Your task to perform on an android device: install app "Viber Messenger" Image 0: 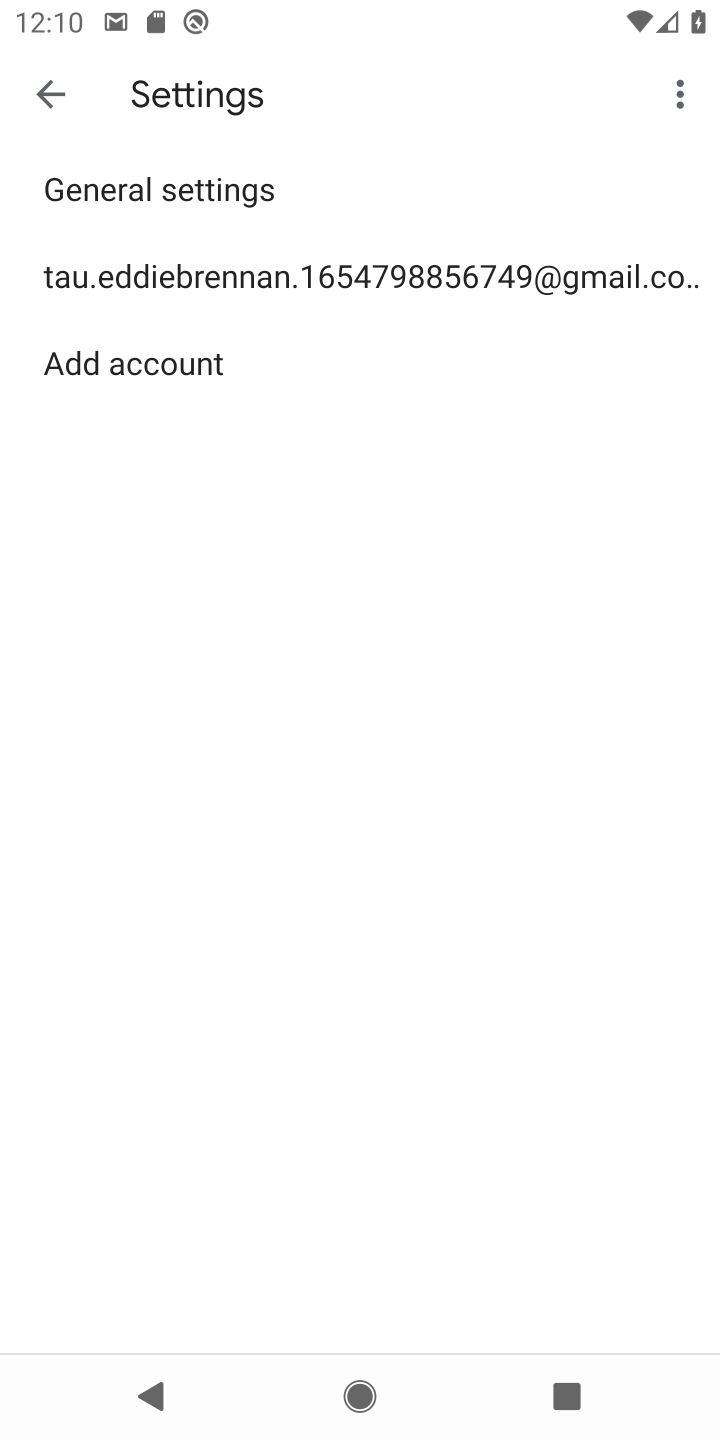
Step 0: press home button
Your task to perform on an android device: install app "Viber Messenger" Image 1: 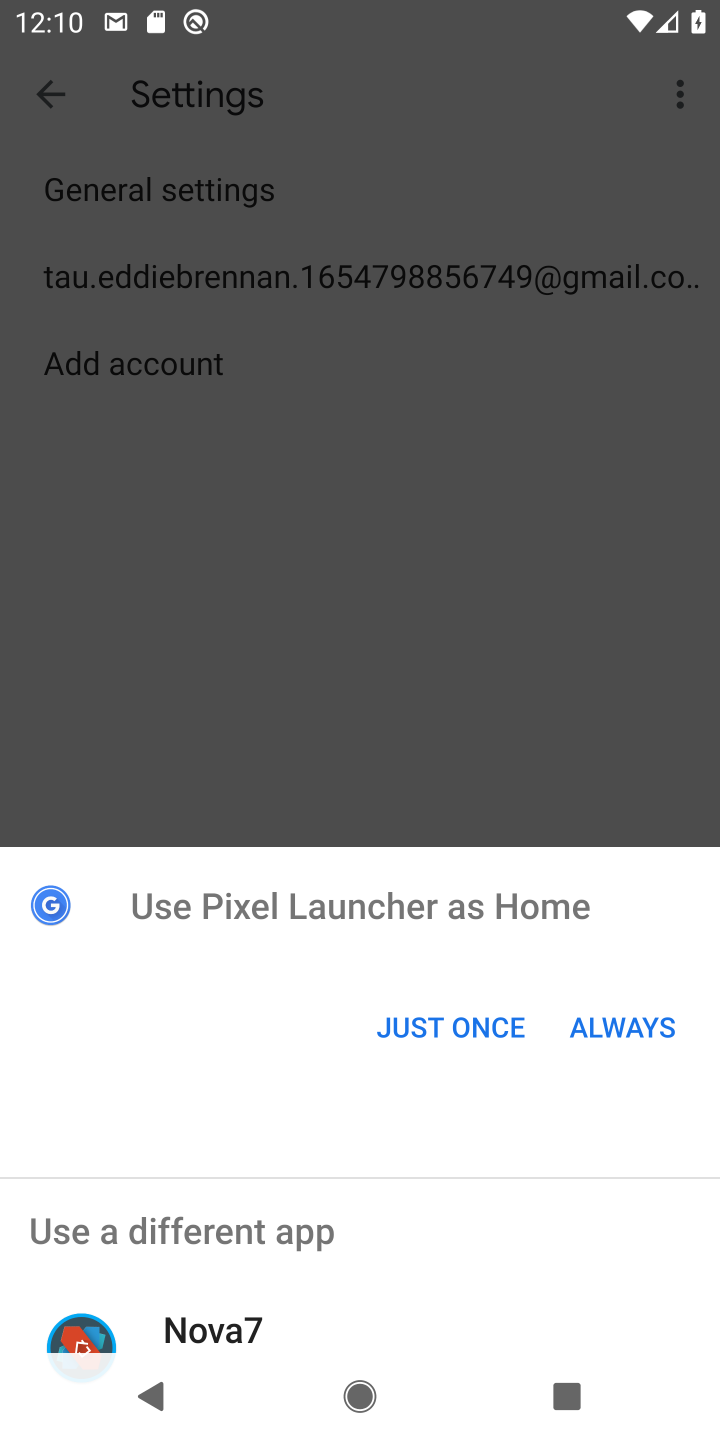
Step 1: press home button
Your task to perform on an android device: install app "Viber Messenger" Image 2: 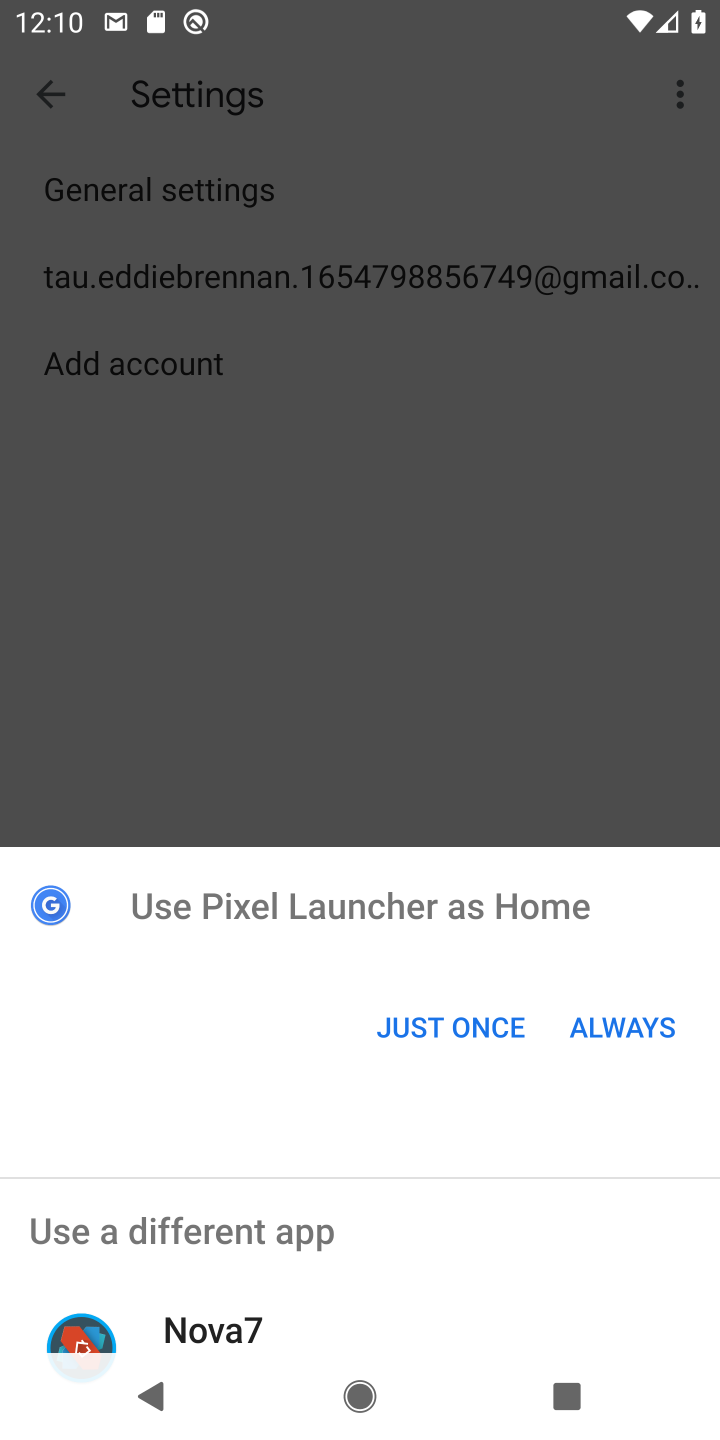
Step 2: click (600, 1027)
Your task to perform on an android device: install app "Viber Messenger" Image 3: 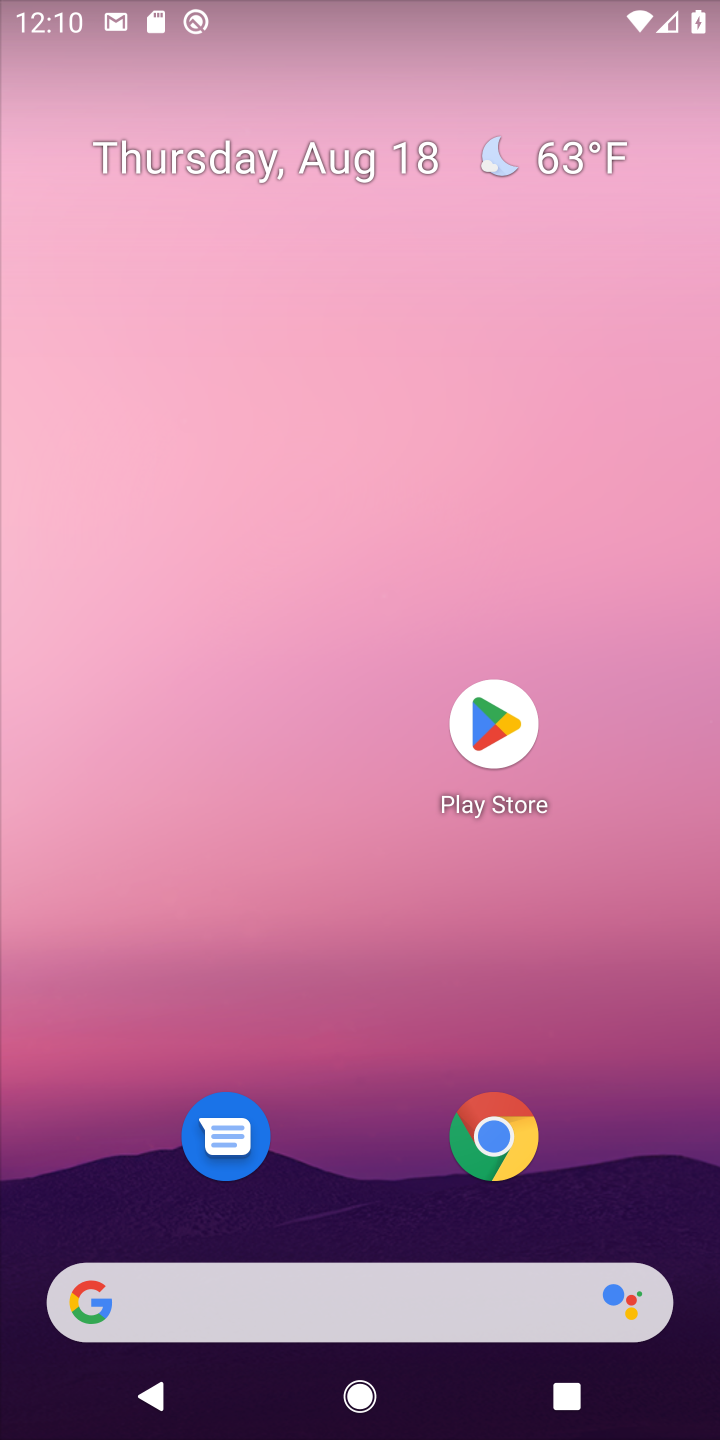
Step 3: click (498, 717)
Your task to perform on an android device: install app "Viber Messenger" Image 4: 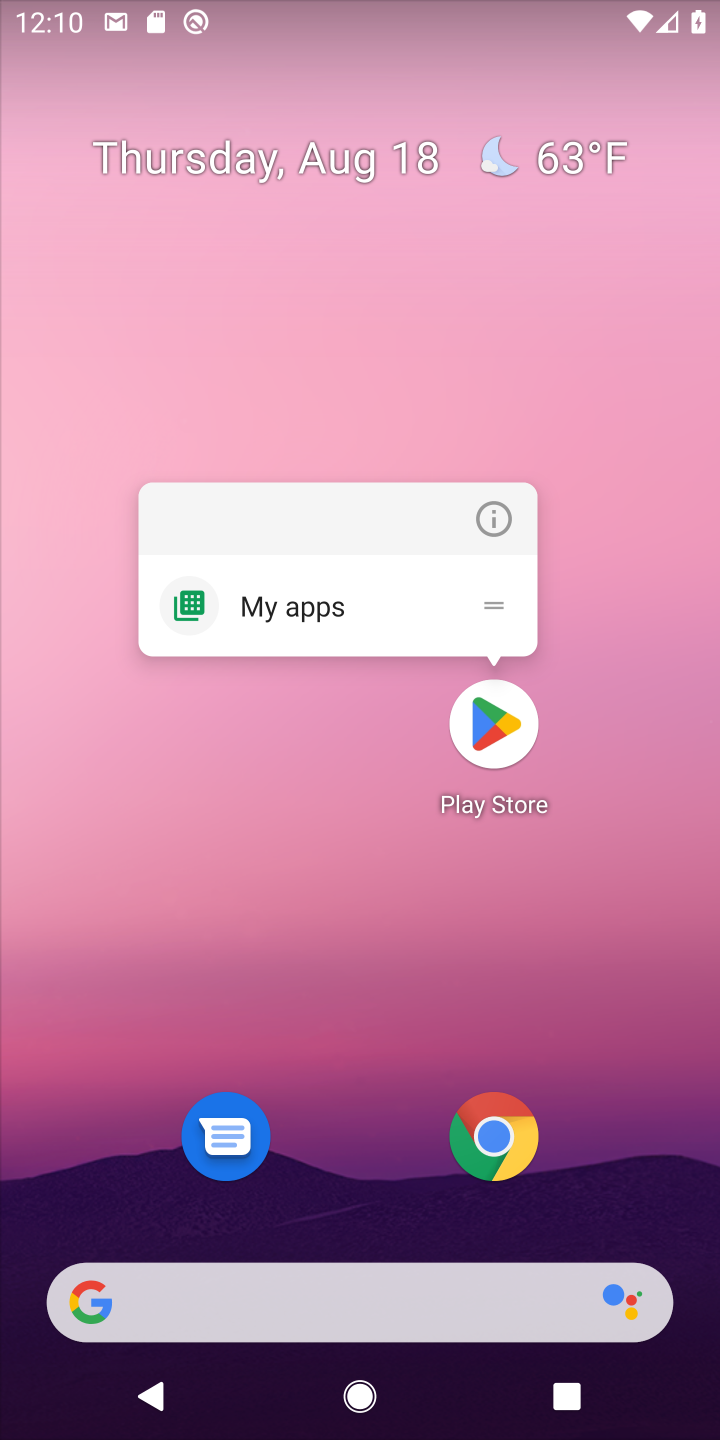
Step 4: click (498, 717)
Your task to perform on an android device: install app "Viber Messenger" Image 5: 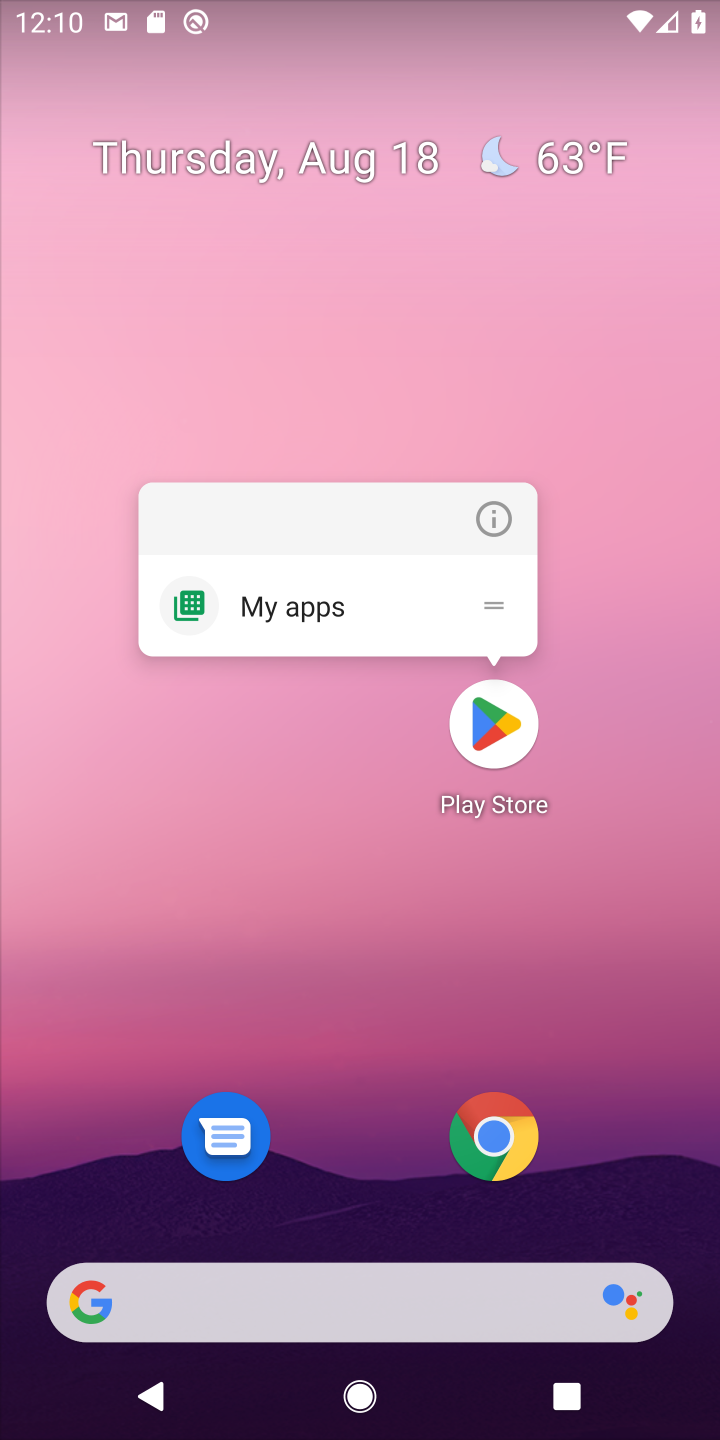
Step 5: click (483, 743)
Your task to perform on an android device: install app "Viber Messenger" Image 6: 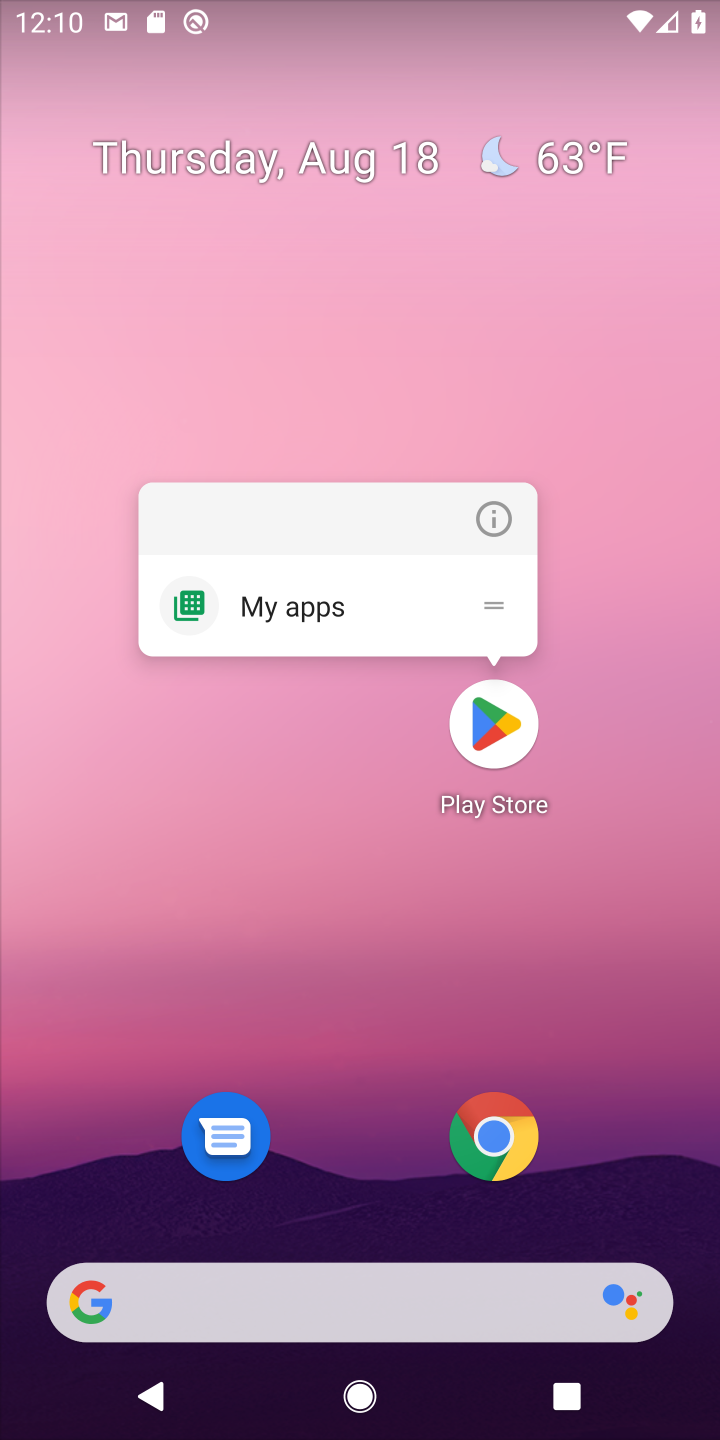
Step 6: click (483, 745)
Your task to perform on an android device: install app "Viber Messenger" Image 7: 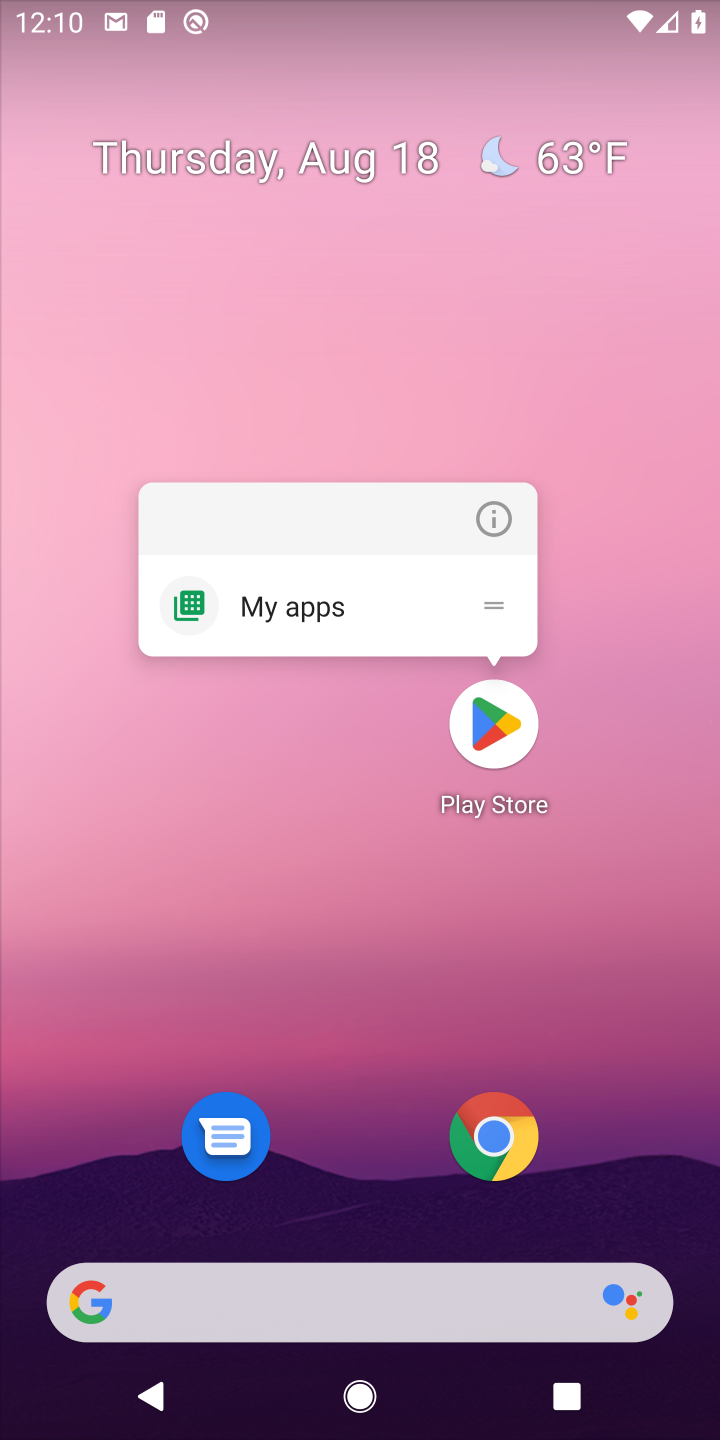
Step 7: click (483, 745)
Your task to perform on an android device: install app "Viber Messenger" Image 8: 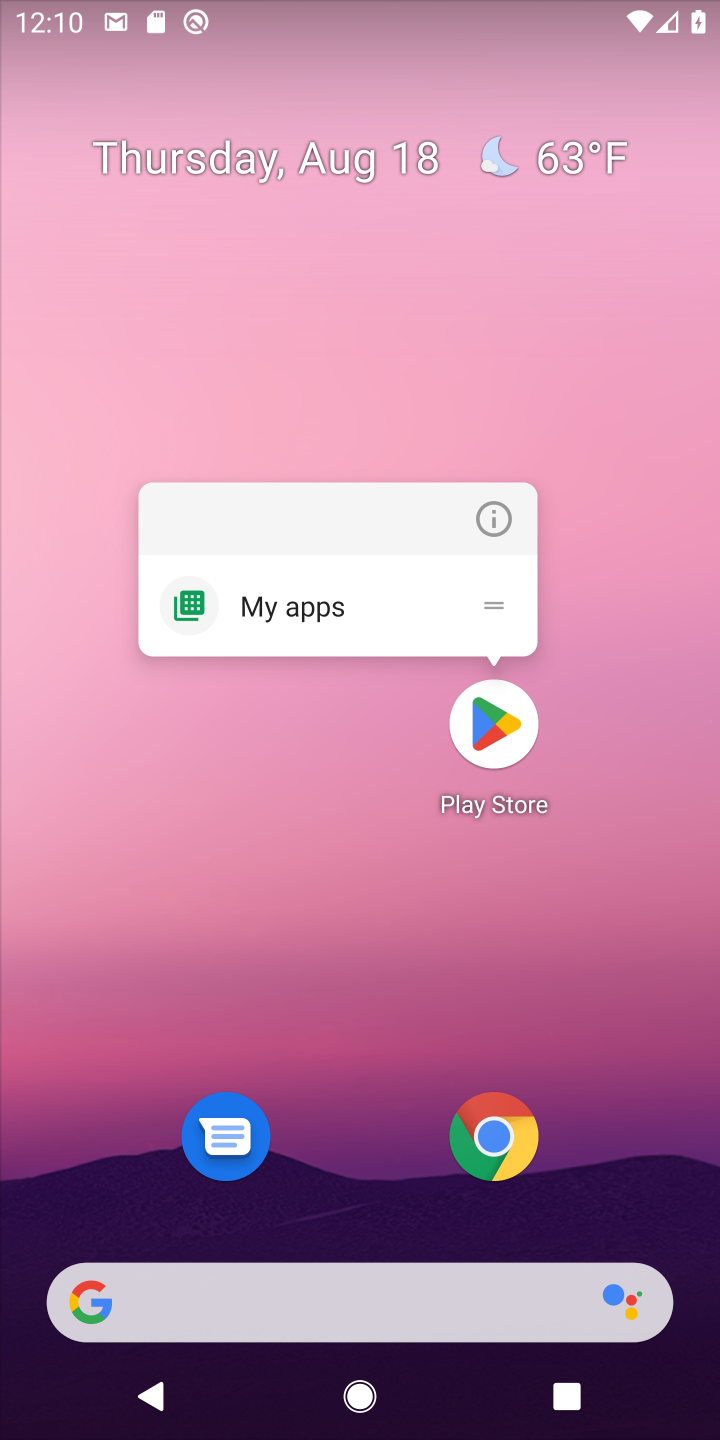
Step 8: click (501, 725)
Your task to perform on an android device: install app "Viber Messenger" Image 9: 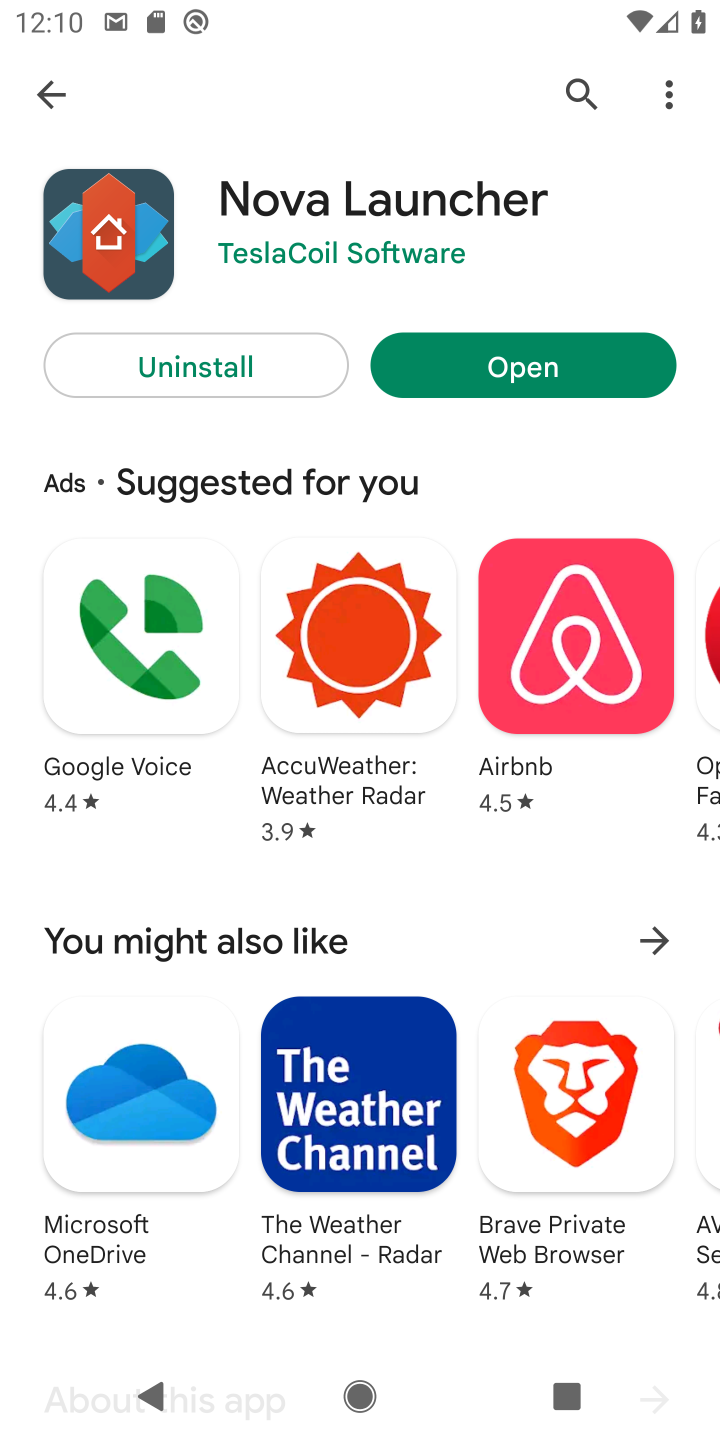
Step 9: click (563, 87)
Your task to perform on an android device: install app "Viber Messenger" Image 10: 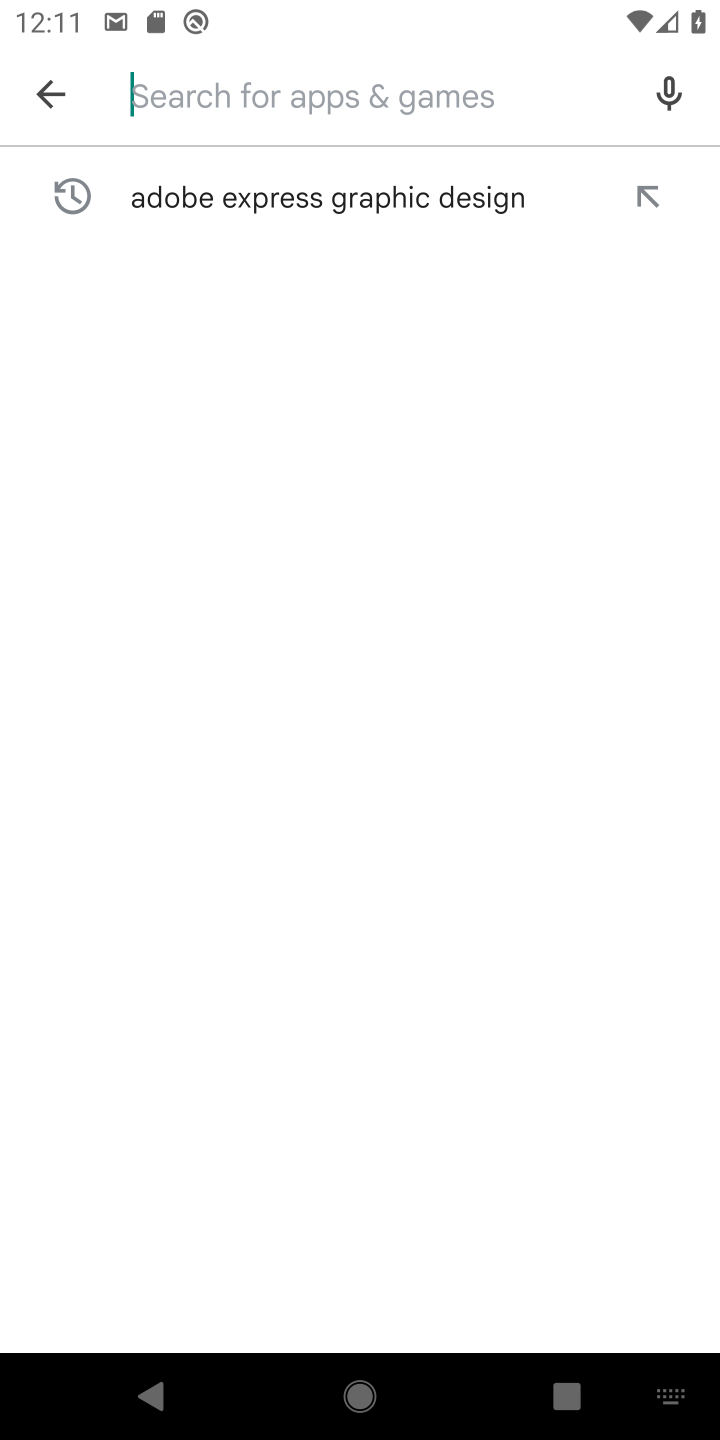
Step 10: type "Viber Messenger"
Your task to perform on an android device: install app "Viber Messenger" Image 11: 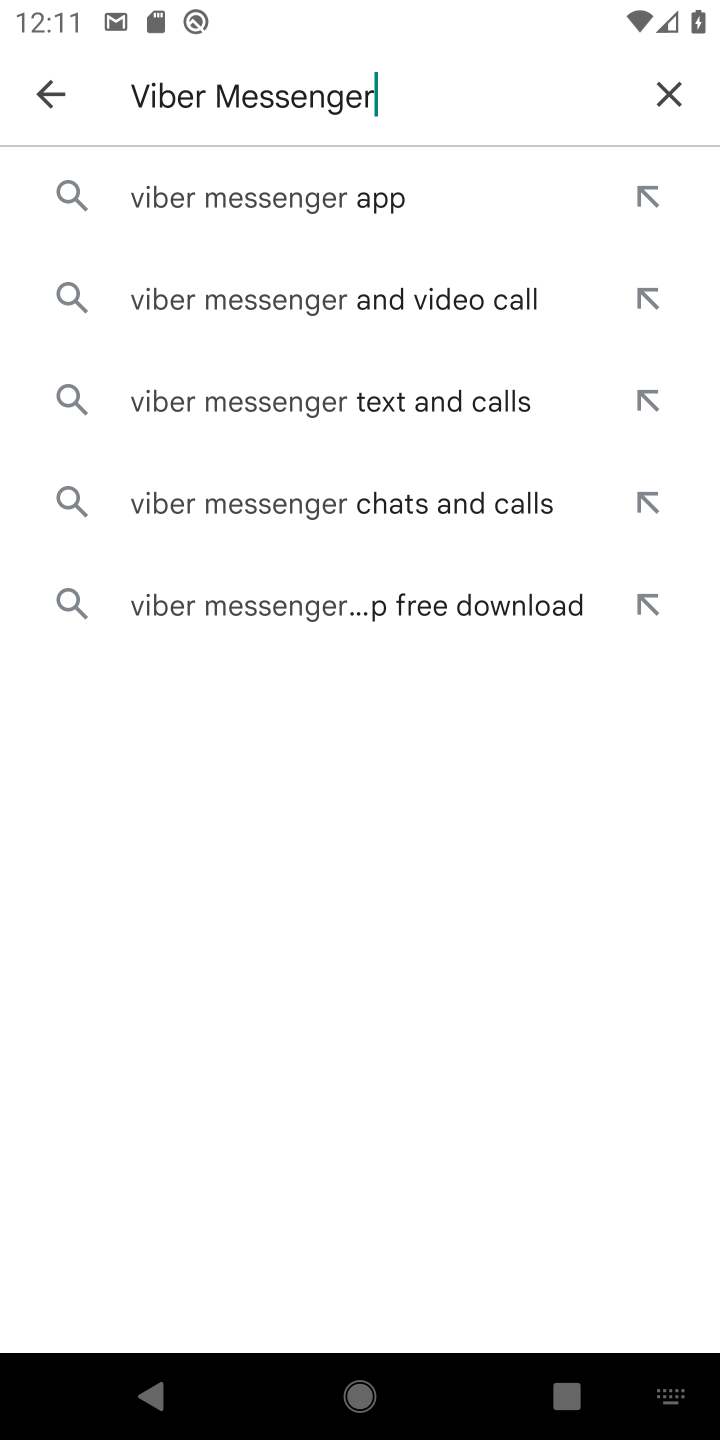
Step 11: click (370, 200)
Your task to perform on an android device: install app "Viber Messenger" Image 12: 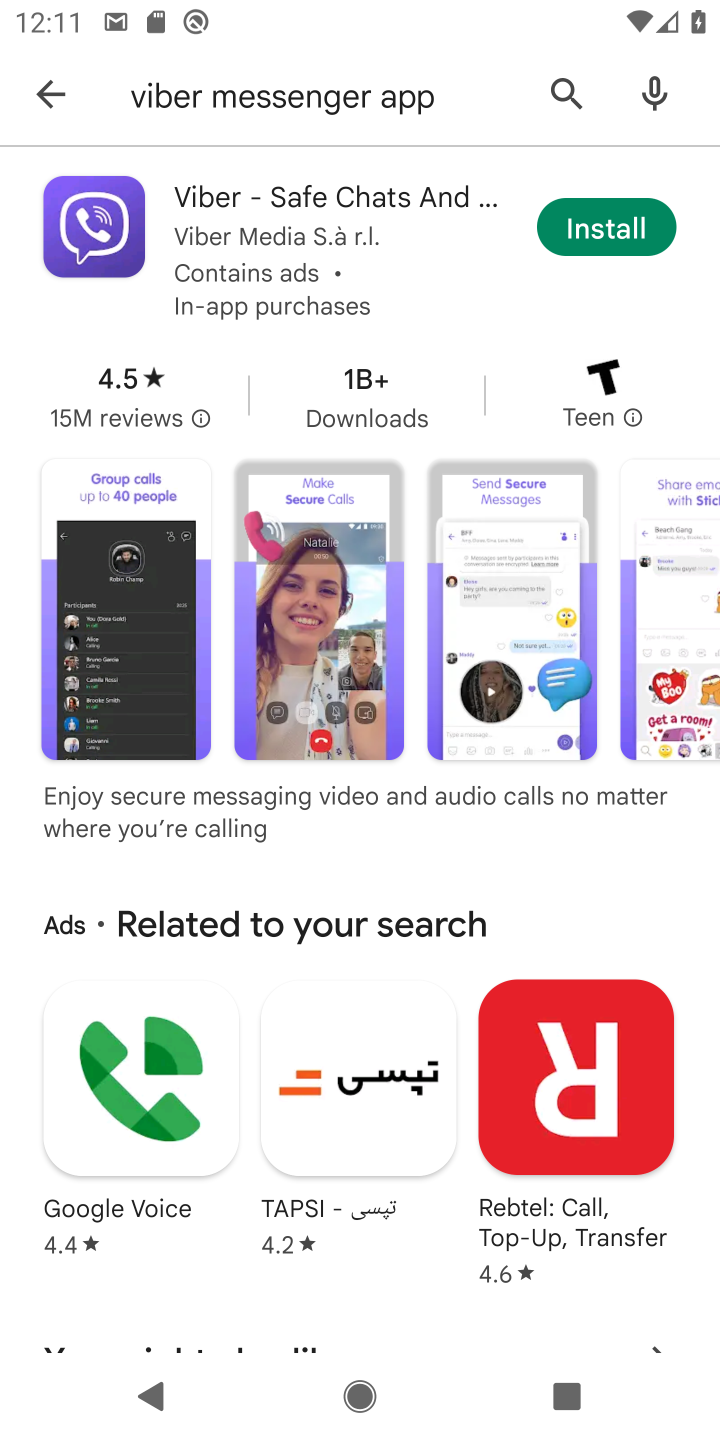
Step 12: click (604, 233)
Your task to perform on an android device: install app "Viber Messenger" Image 13: 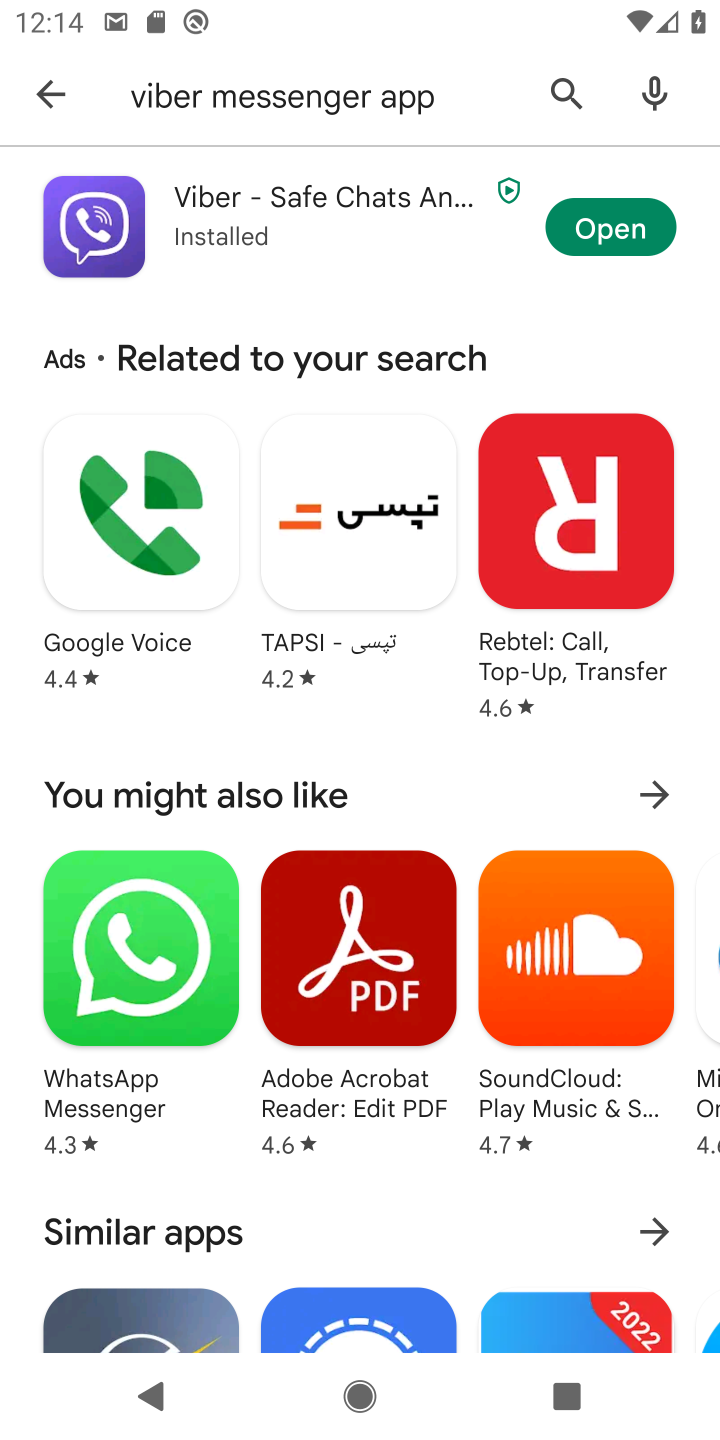
Step 13: task complete